Your task to perform on an android device: turn on data saver in the chrome app Image 0: 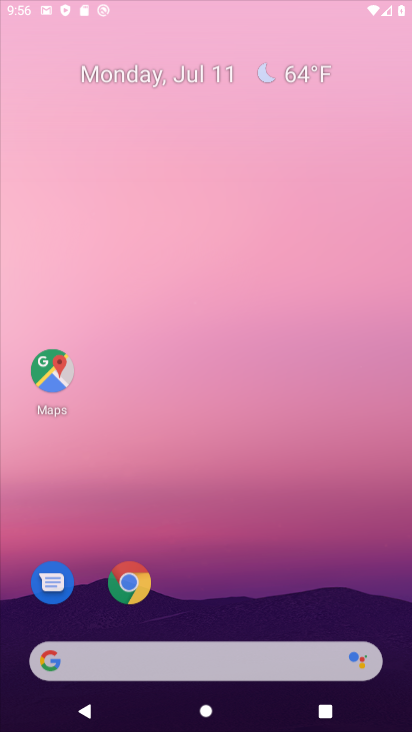
Step 0: drag from (231, 319) to (276, 81)
Your task to perform on an android device: turn on data saver in the chrome app Image 1: 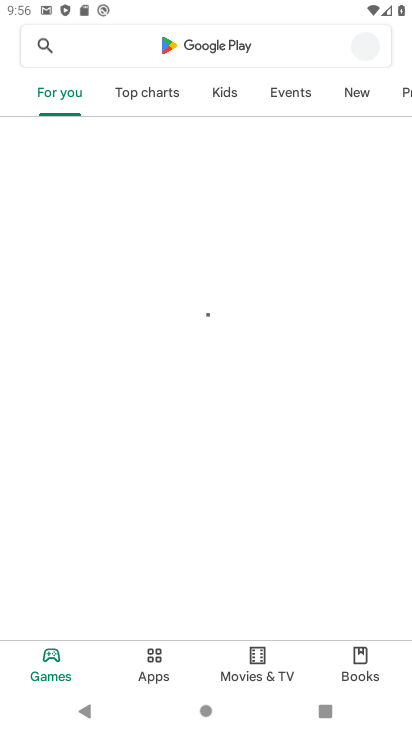
Step 1: press home button
Your task to perform on an android device: turn on data saver in the chrome app Image 2: 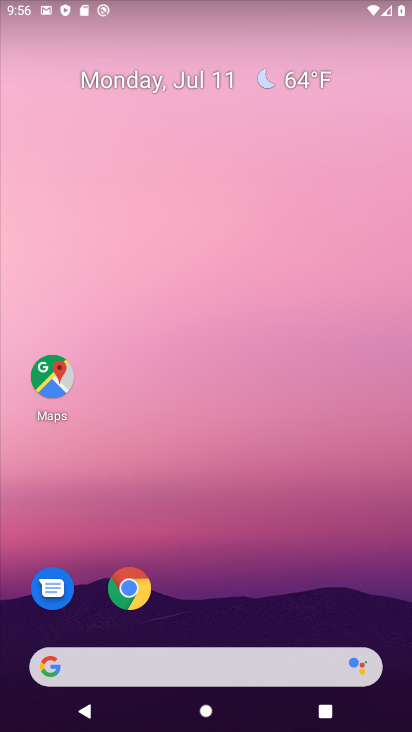
Step 2: click (126, 601)
Your task to perform on an android device: turn on data saver in the chrome app Image 3: 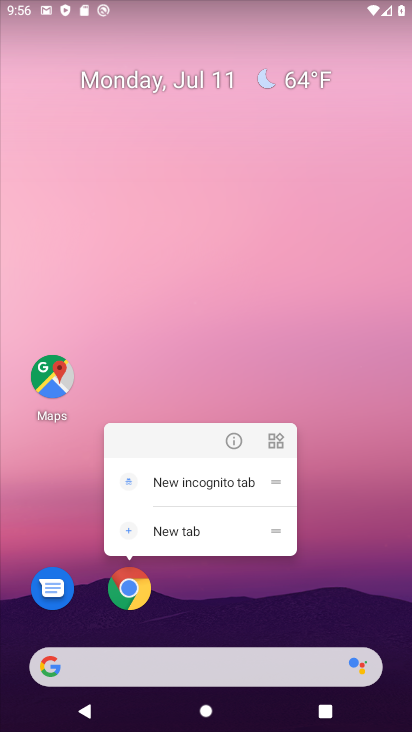
Step 3: click (129, 591)
Your task to perform on an android device: turn on data saver in the chrome app Image 4: 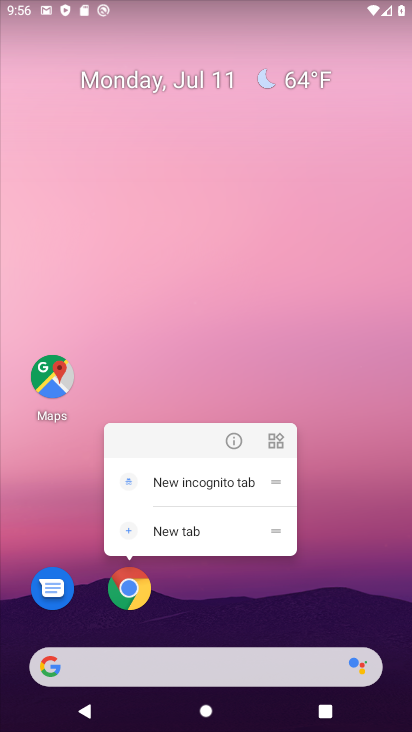
Step 4: click (129, 591)
Your task to perform on an android device: turn on data saver in the chrome app Image 5: 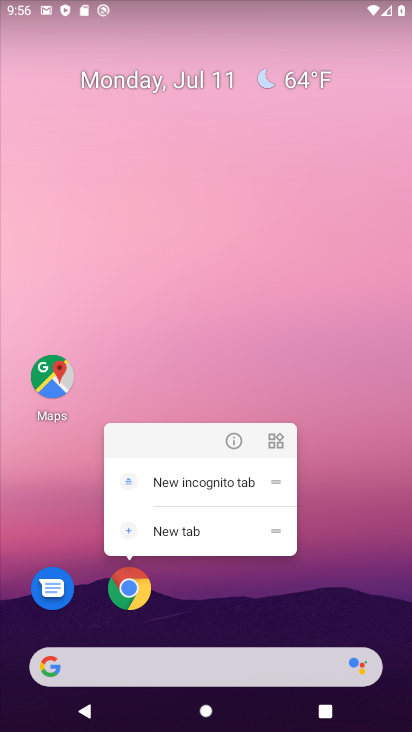
Step 5: click (130, 591)
Your task to perform on an android device: turn on data saver in the chrome app Image 6: 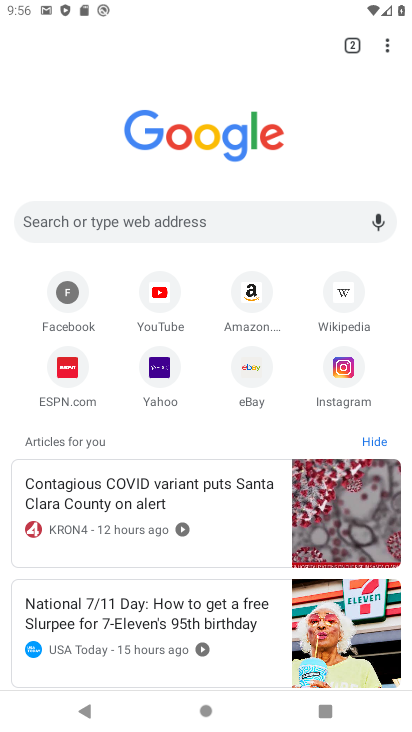
Step 6: drag from (387, 48) to (254, 386)
Your task to perform on an android device: turn on data saver in the chrome app Image 7: 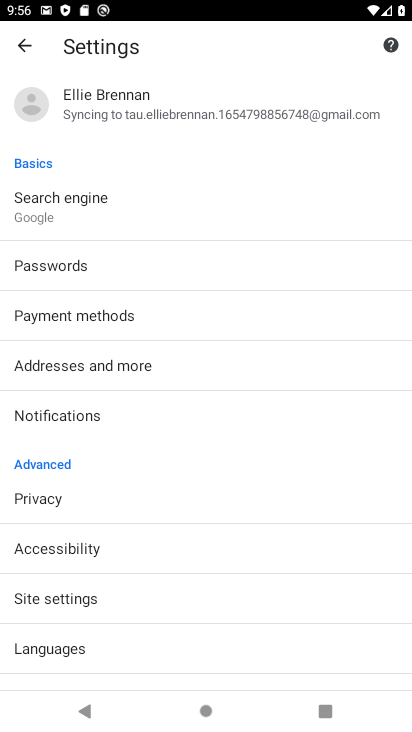
Step 7: drag from (170, 590) to (248, 305)
Your task to perform on an android device: turn on data saver in the chrome app Image 8: 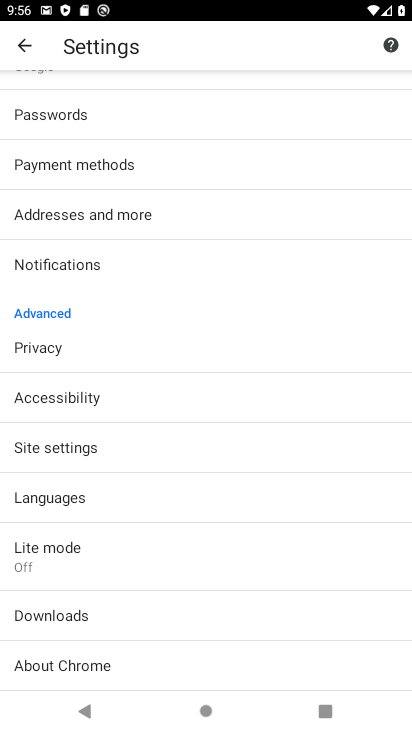
Step 8: click (85, 566)
Your task to perform on an android device: turn on data saver in the chrome app Image 9: 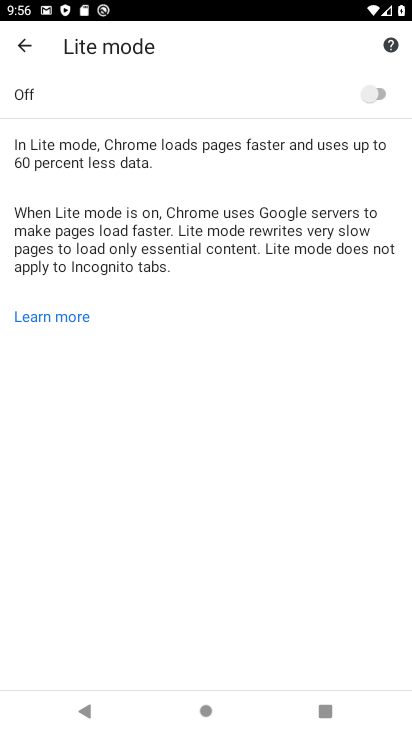
Step 9: click (380, 98)
Your task to perform on an android device: turn on data saver in the chrome app Image 10: 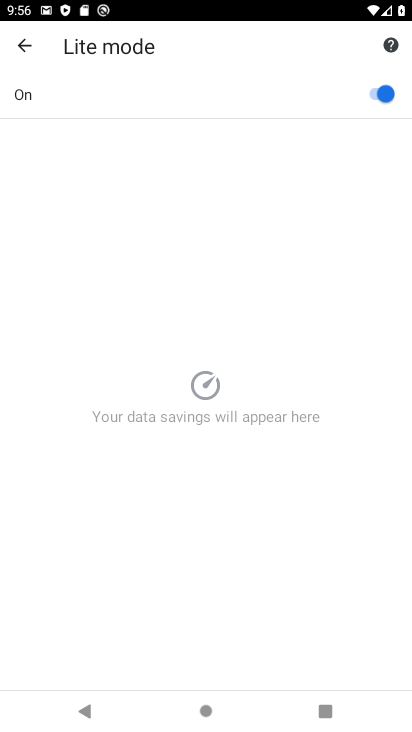
Step 10: task complete